Your task to perform on an android device: What is the recent news? Image 0: 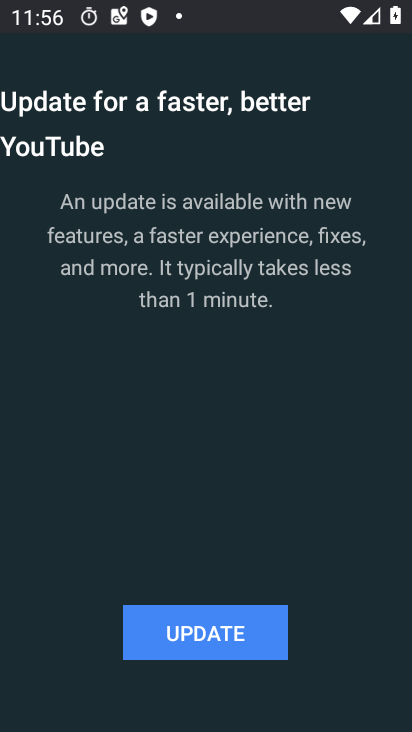
Step 0: press home button
Your task to perform on an android device: What is the recent news? Image 1: 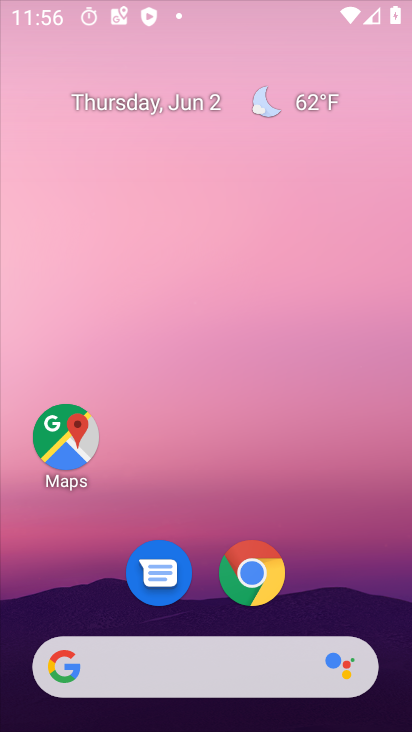
Step 1: drag from (269, 520) to (247, 46)
Your task to perform on an android device: What is the recent news? Image 2: 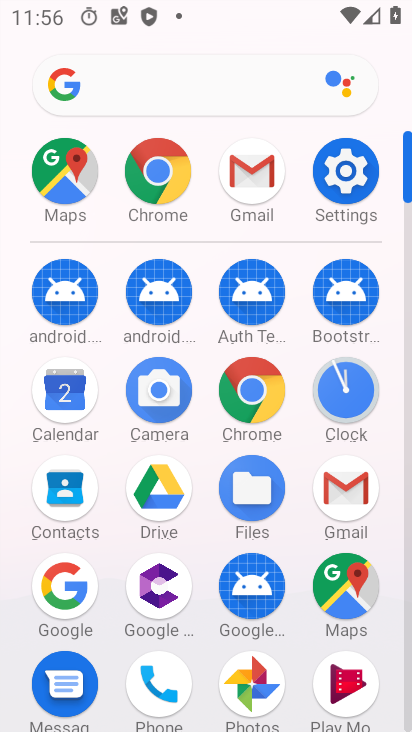
Step 2: click (254, 379)
Your task to perform on an android device: What is the recent news? Image 3: 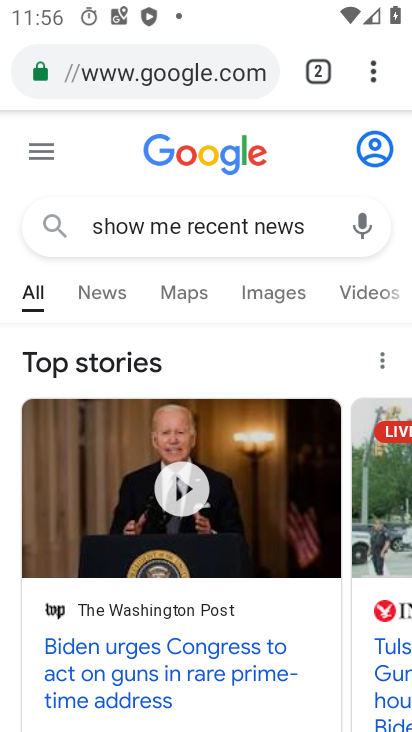
Step 3: task complete